Your task to perform on an android device: set an alarm Image 0: 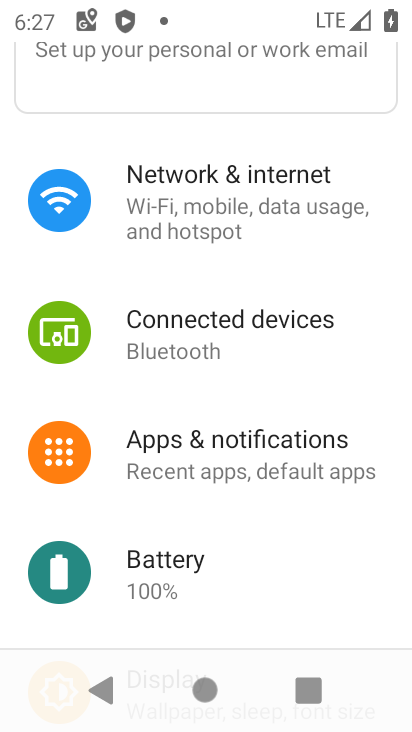
Step 0: press home button
Your task to perform on an android device: set an alarm Image 1: 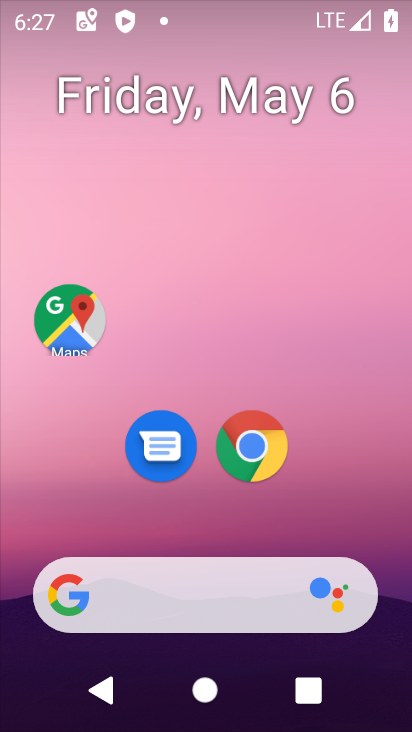
Step 1: drag from (304, 490) to (303, 133)
Your task to perform on an android device: set an alarm Image 2: 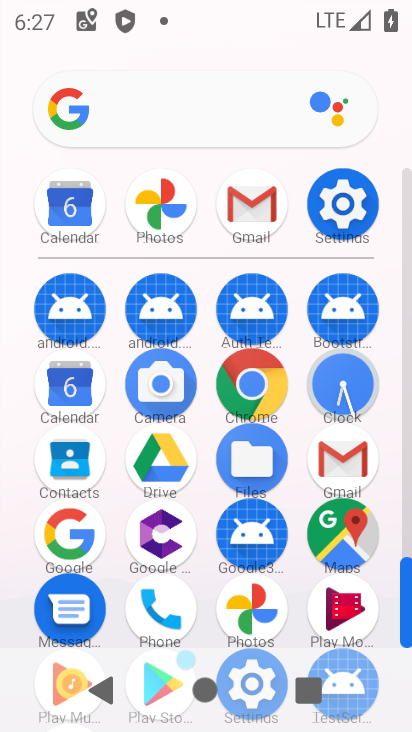
Step 2: click (333, 401)
Your task to perform on an android device: set an alarm Image 3: 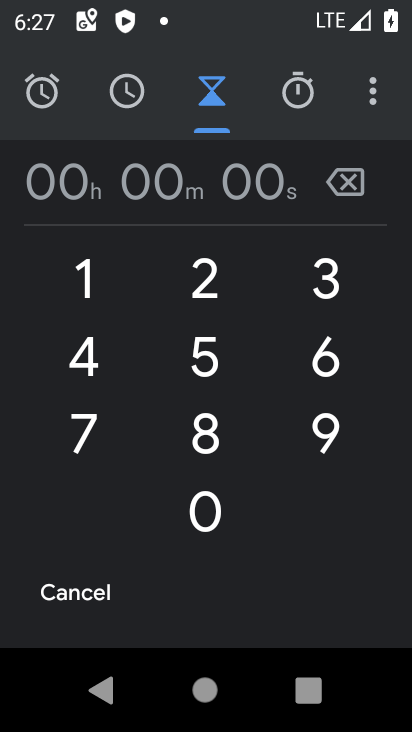
Step 3: click (54, 98)
Your task to perform on an android device: set an alarm Image 4: 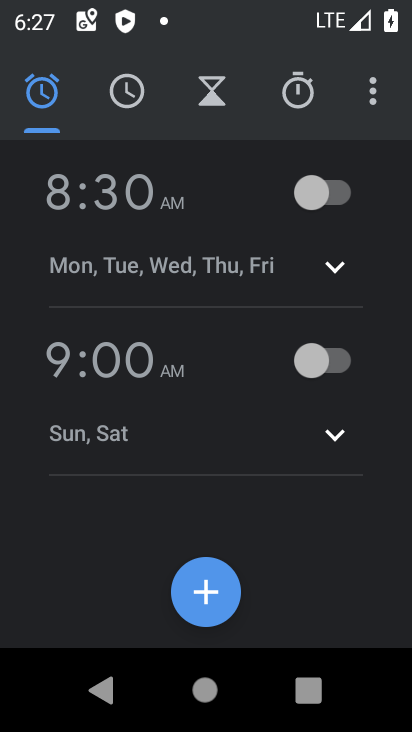
Step 4: click (346, 208)
Your task to perform on an android device: set an alarm Image 5: 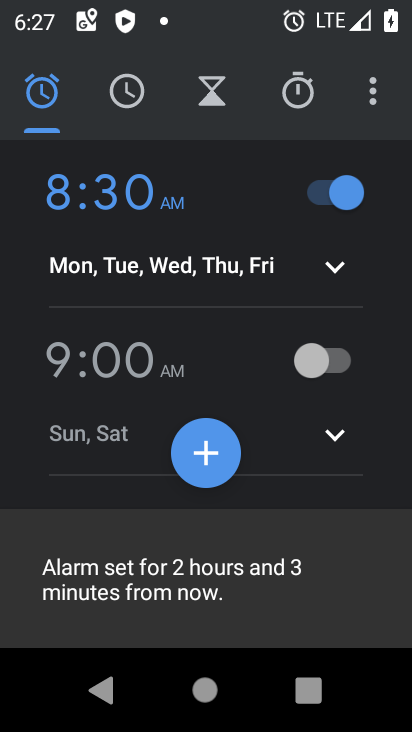
Step 5: task complete